Your task to perform on an android device: turn off wifi Image 0: 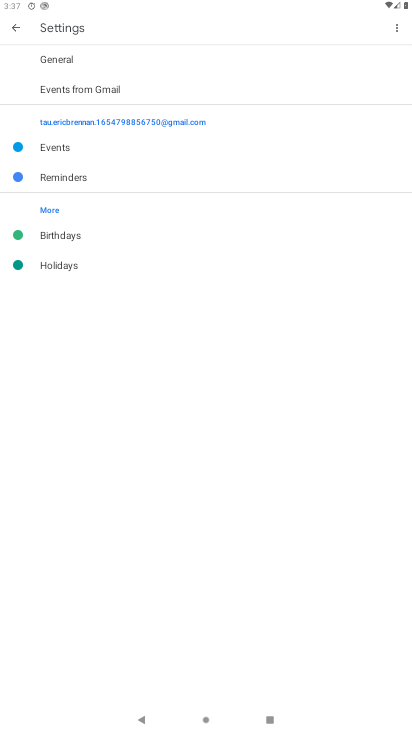
Step 0: press home button
Your task to perform on an android device: turn off wifi Image 1: 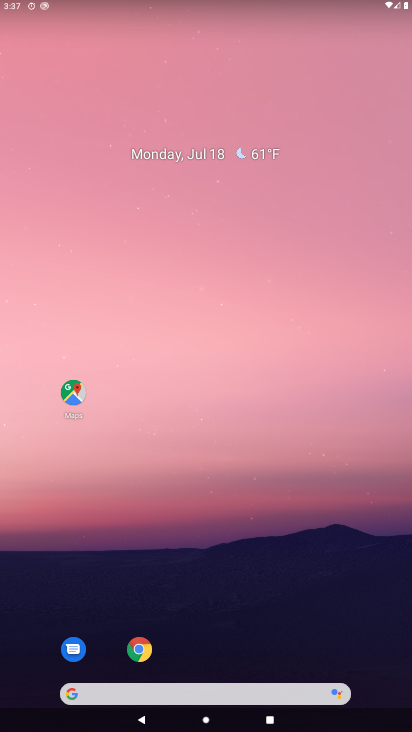
Step 1: drag from (67, 673) to (244, 254)
Your task to perform on an android device: turn off wifi Image 2: 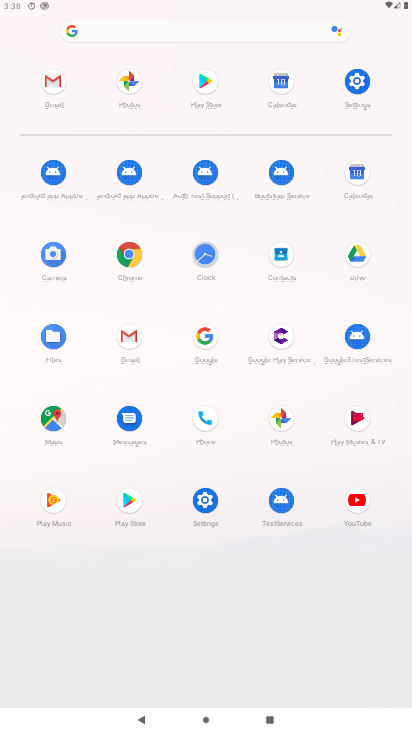
Step 2: click (202, 501)
Your task to perform on an android device: turn off wifi Image 3: 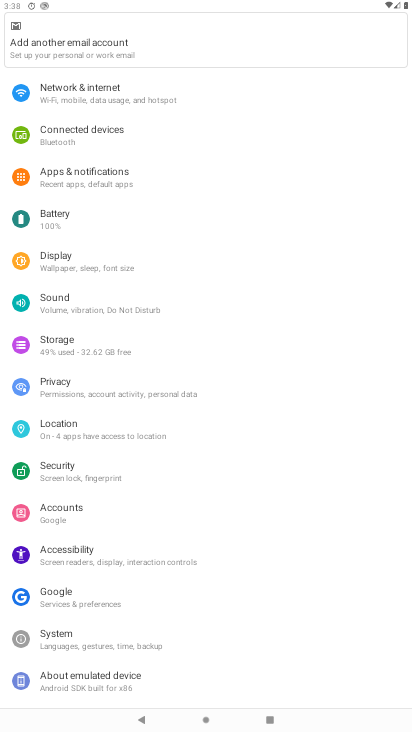
Step 3: click (92, 96)
Your task to perform on an android device: turn off wifi Image 4: 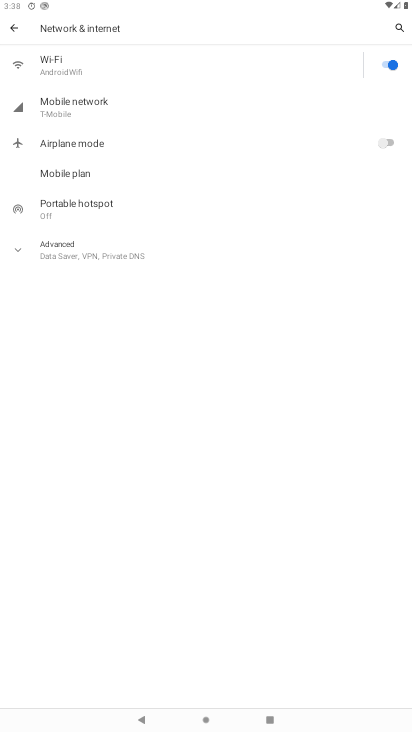
Step 4: task complete